Your task to perform on an android device: Search for seafood restaurants on Google Maps Image 0: 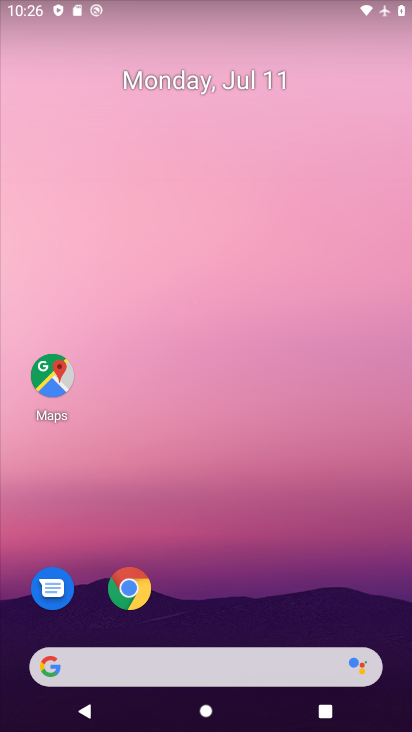
Step 0: click (54, 383)
Your task to perform on an android device: Search for seafood restaurants on Google Maps Image 1: 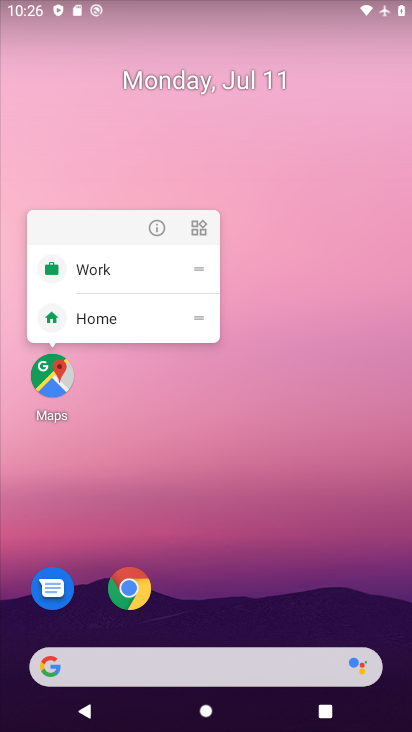
Step 1: click (46, 378)
Your task to perform on an android device: Search for seafood restaurants on Google Maps Image 2: 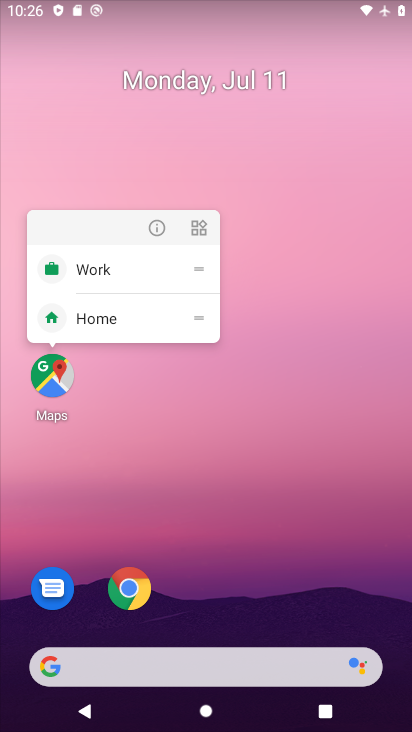
Step 2: click (46, 378)
Your task to perform on an android device: Search for seafood restaurants on Google Maps Image 3: 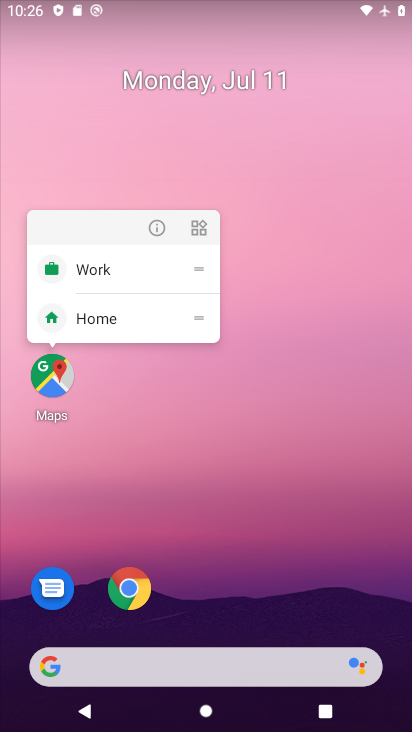
Step 3: click (46, 378)
Your task to perform on an android device: Search for seafood restaurants on Google Maps Image 4: 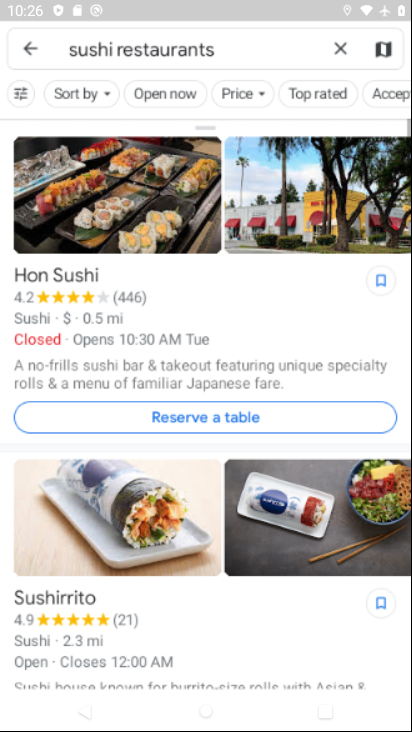
Step 4: click (339, 41)
Your task to perform on an android device: Search for seafood restaurants on Google Maps Image 5: 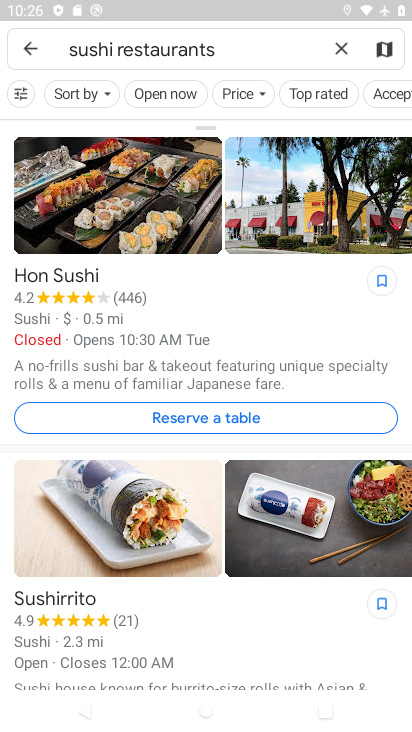
Step 5: click (338, 45)
Your task to perform on an android device: Search for seafood restaurants on Google Maps Image 6: 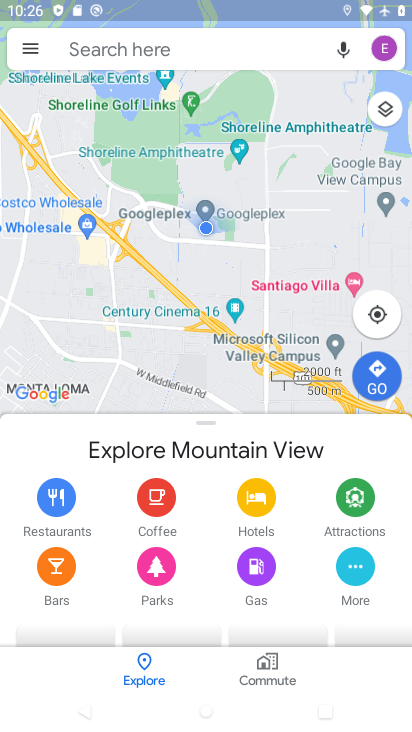
Step 6: click (133, 43)
Your task to perform on an android device: Search for seafood restaurants on Google Maps Image 7: 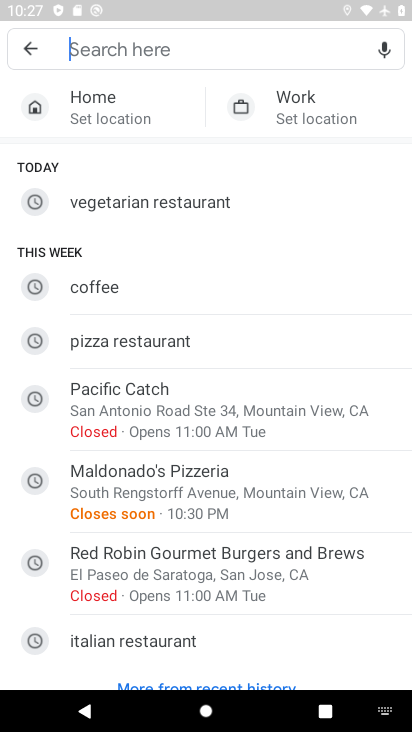
Step 7: type "seafood restaurants"
Your task to perform on an android device: Search for seafood restaurants on Google Maps Image 8: 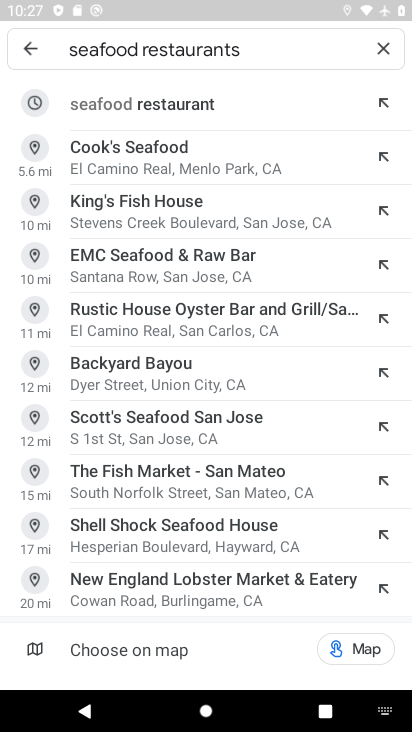
Step 8: click (158, 107)
Your task to perform on an android device: Search for seafood restaurants on Google Maps Image 9: 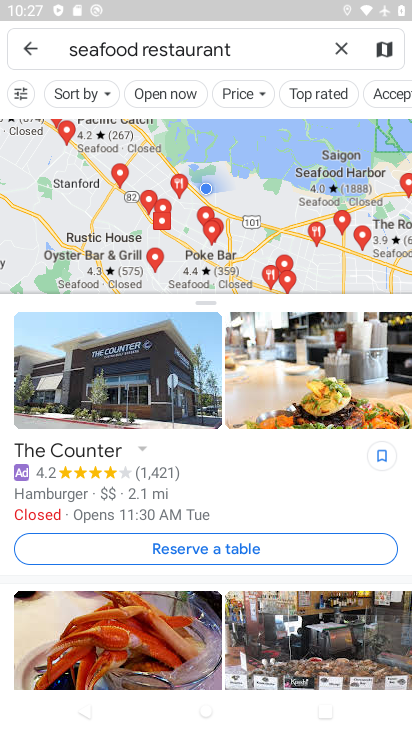
Step 9: task complete